Your task to perform on an android device: open app "Google Home" (install if not already installed) Image 0: 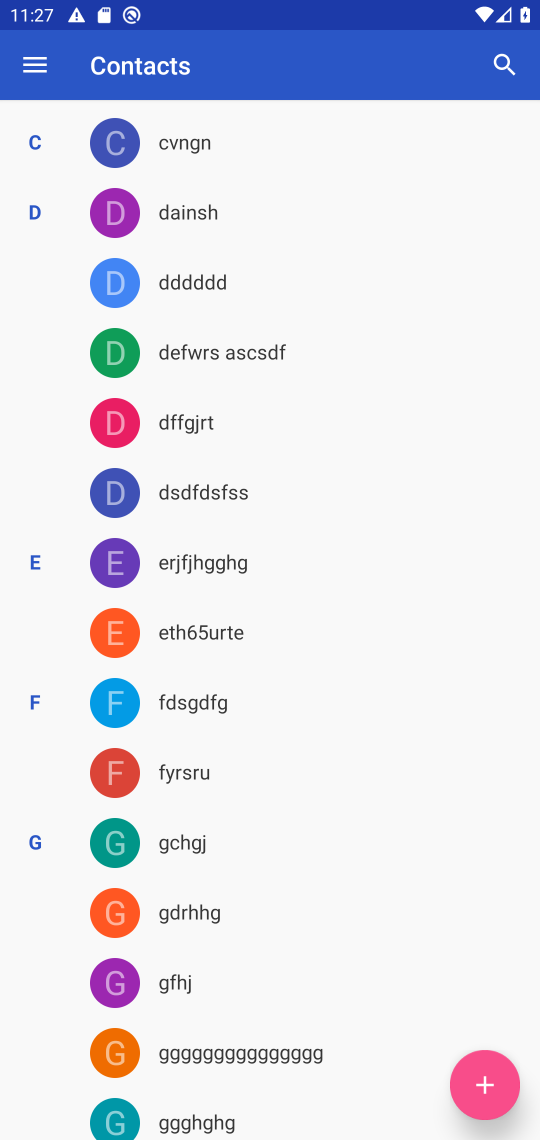
Step 0: press home button
Your task to perform on an android device: open app "Google Home" (install if not already installed) Image 1: 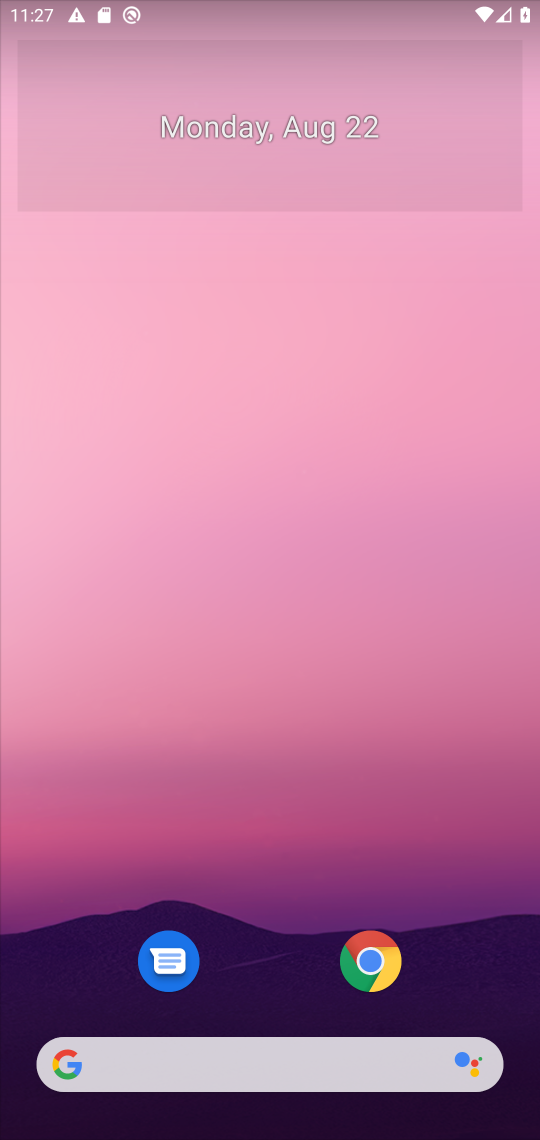
Step 1: drag from (288, 1014) to (224, 381)
Your task to perform on an android device: open app "Google Home" (install if not already installed) Image 2: 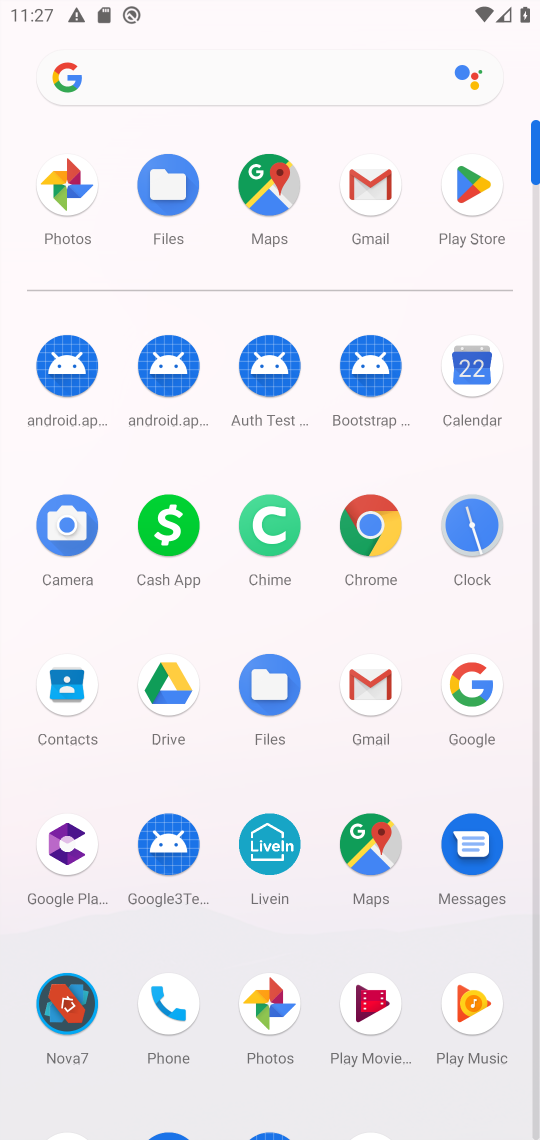
Step 2: click (465, 214)
Your task to perform on an android device: open app "Google Home" (install if not already installed) Image 3: 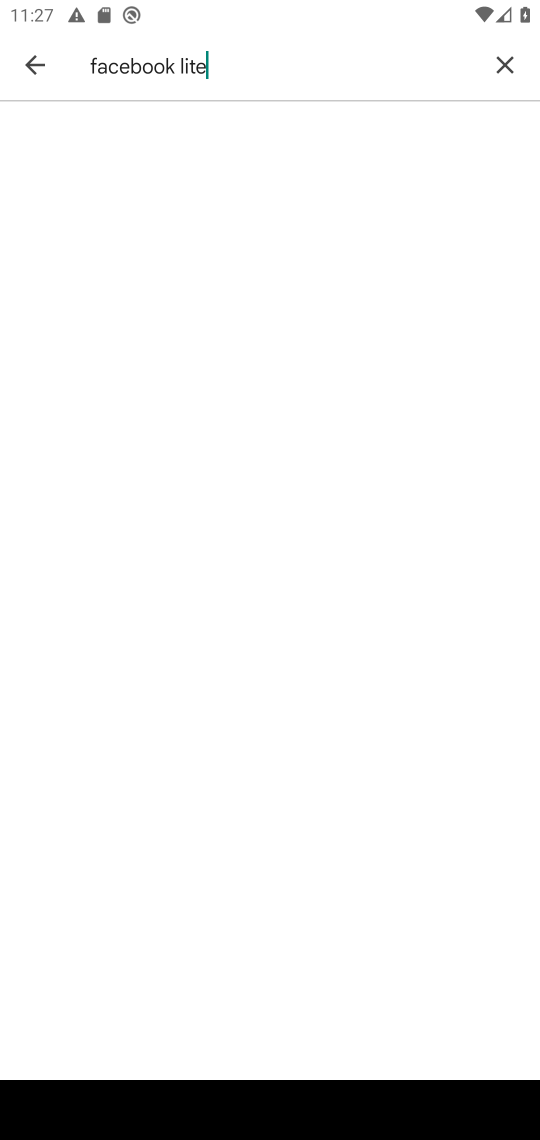
Step 3: click (506, 78)
Your task to perform on an android device: open app "Google Home" (install if not already installed) Image 4: 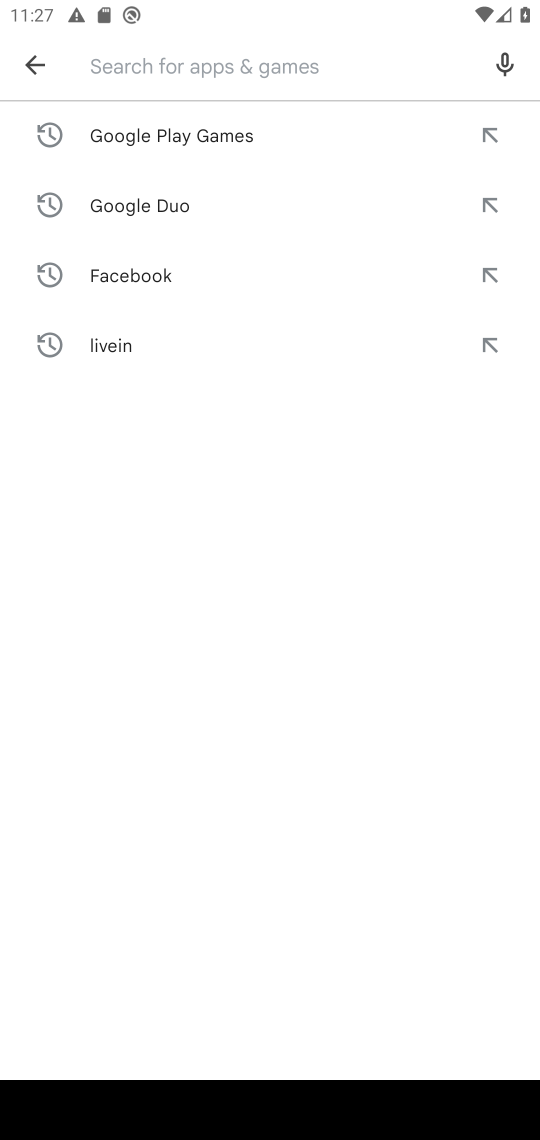
Step 4: type "google home"
Your task to perform on an android device: open app "Google Home" (install if not already installed) Image 5: 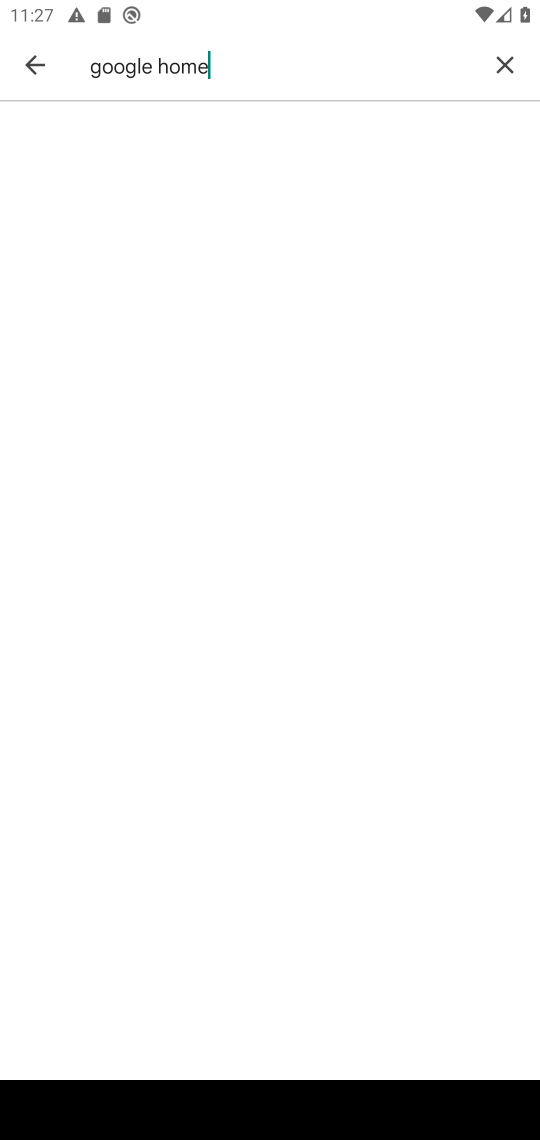
Step 5: task complete